Your task to perform on an android device: Open calendar and show me the first week of next month Image 0: 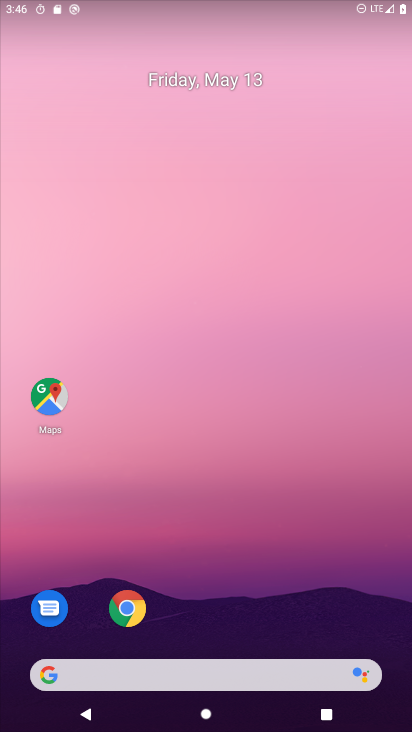
Step 0: drag from (251, 585) to (294, 95)
Your task to perform on an android device: Open calendar and show me the first week of next month Image 1: 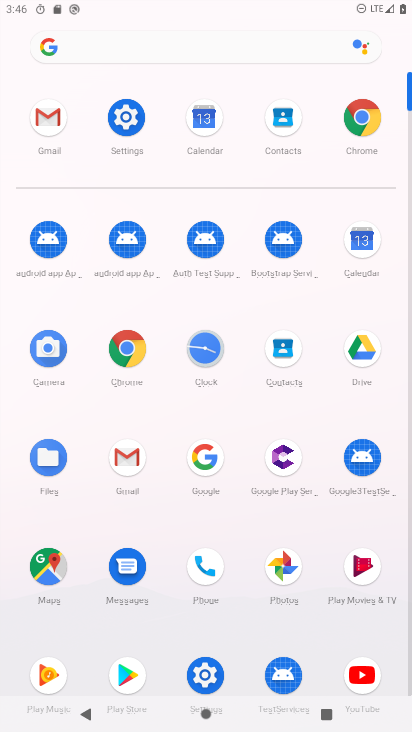
Step 1: click (200, 120)
Your task to perform on an android device: Open calendar and show me the first week of next month Image 2: 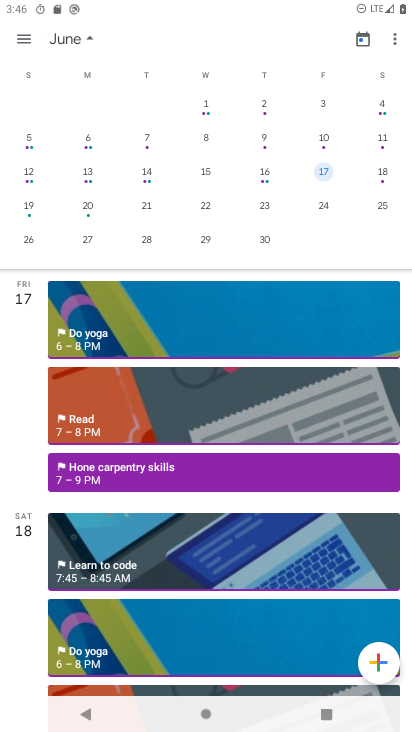
Step 2: click (379, 101)
Your task to perform on an android device: Open calendar and show me the first week of next month Image 3: 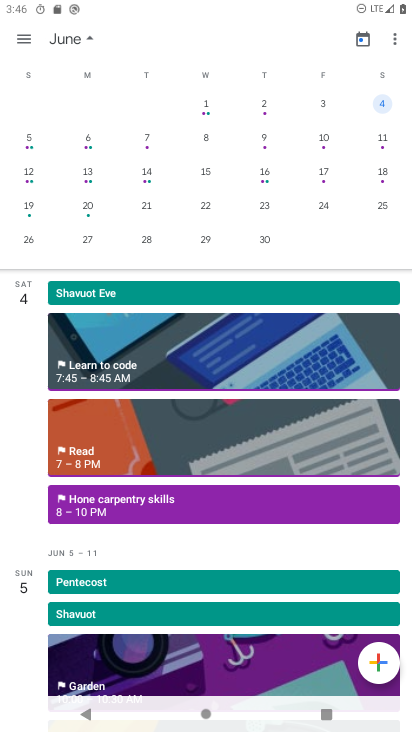
Step 3: task complete